Your task to perform on an android device: manage bookmarks in the chrome app Image 0: 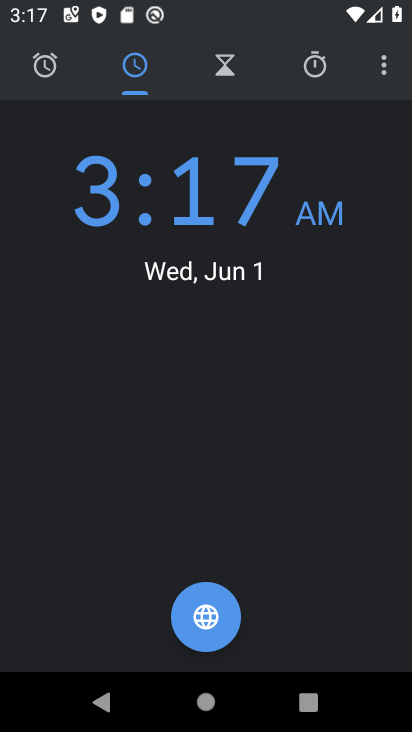
Step 0: press home button
Your task to perform on an android device: manage bookmarks in the chrome app Image 1: 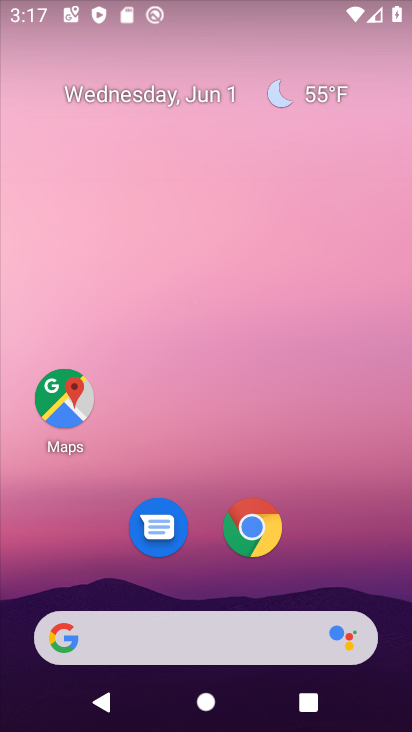
Step 1: drag from (349, 596) to (378, 155)
Your task to perform on an android device: manage bookmarks in the chrome app Image 2: 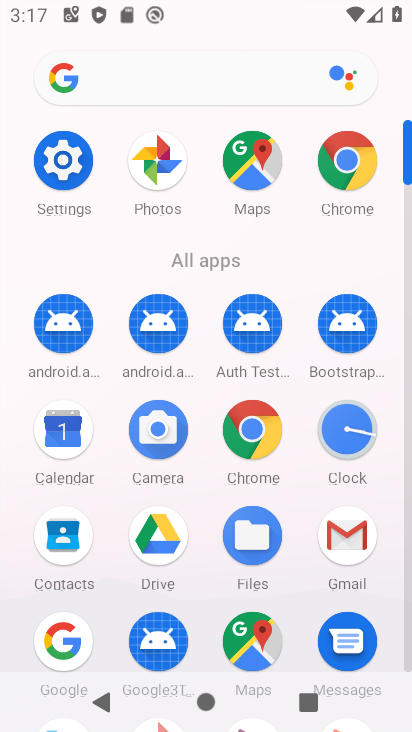
Step 2: click (350, 164)
Your task to perform on an android device: manage bookmarks in the chrome app Image 3: 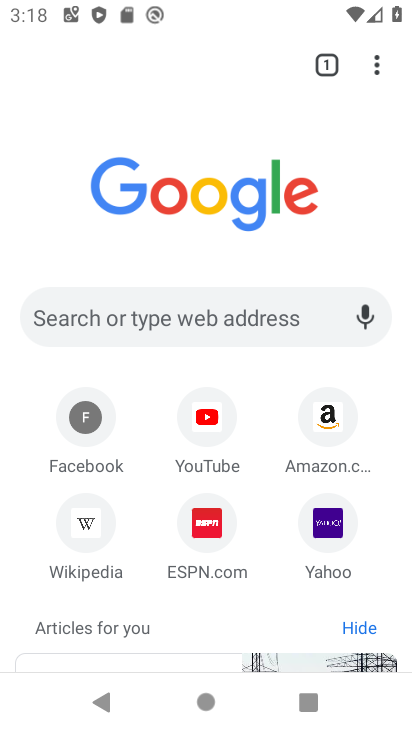
Step 3: task complete